Your task to perform on an android device: find photos in the google photos app Image 0: 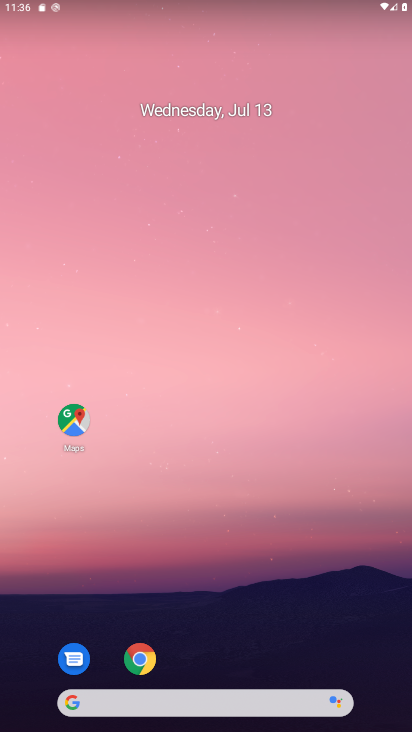
Step 0: drag from (311, 593) to (303, 299)
Your task to perform on an android device: find photos in the google photos app Image 1: 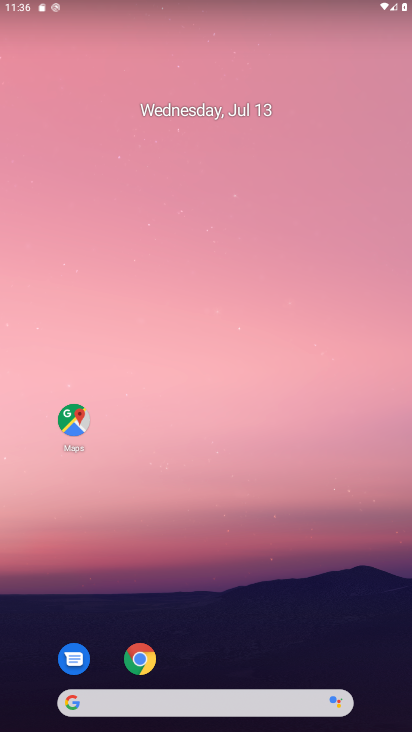
Step 1: drag from (256, 642) to (384, 62)
Your task to perform on an android device: find photos in the google photos app Image 2: 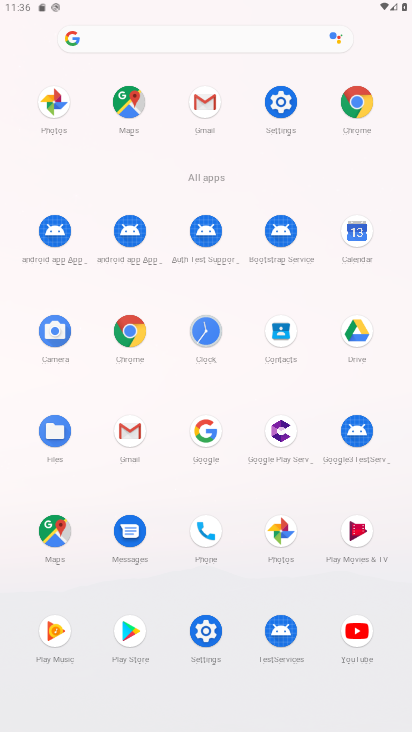
Step 2: click (273, 534)
Your task to perform on an android device: find photos in the google photos app Image 3: 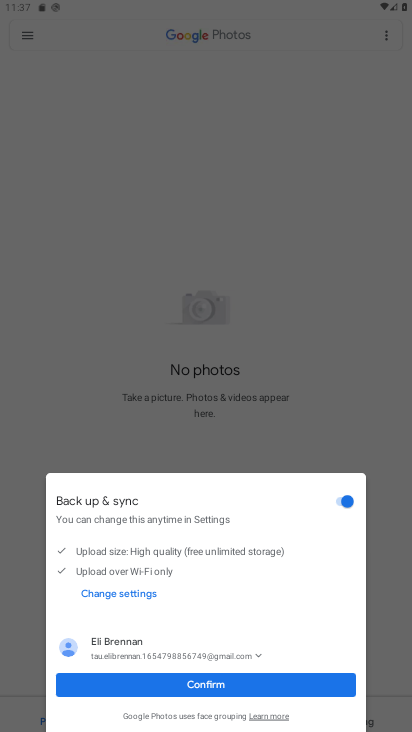
Step 3: click (234, 685)
Your task to perform on an android device: find photos in the google photos app Image 4: 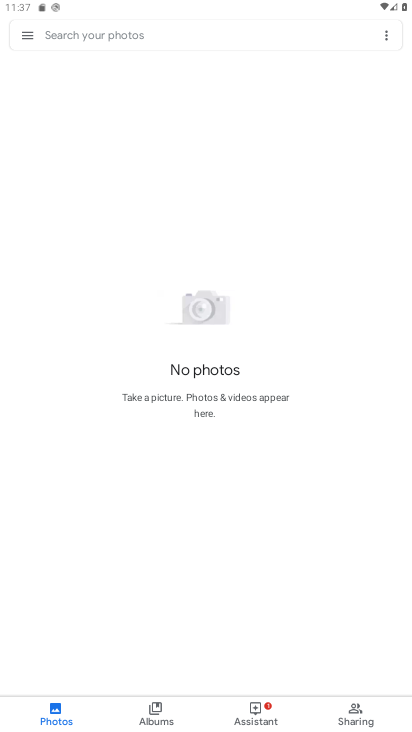
Step 4: task complete